Your task to perform on an android device: make emails show in primary in the gmail app Image 0: 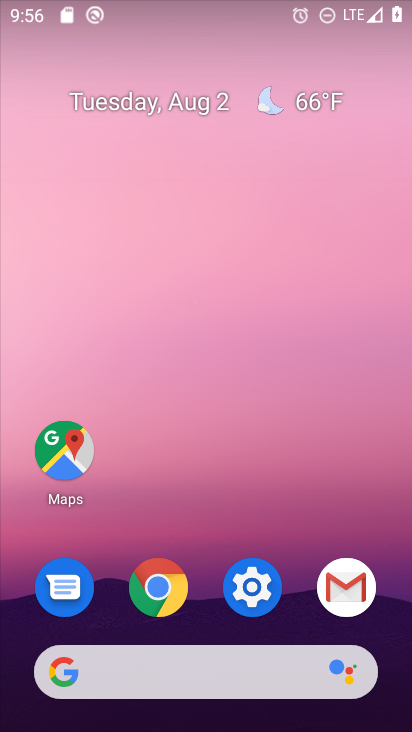
Step 0: press home button
Your task to perform on an android device: make emails show in primary in the gmail app Image 1: 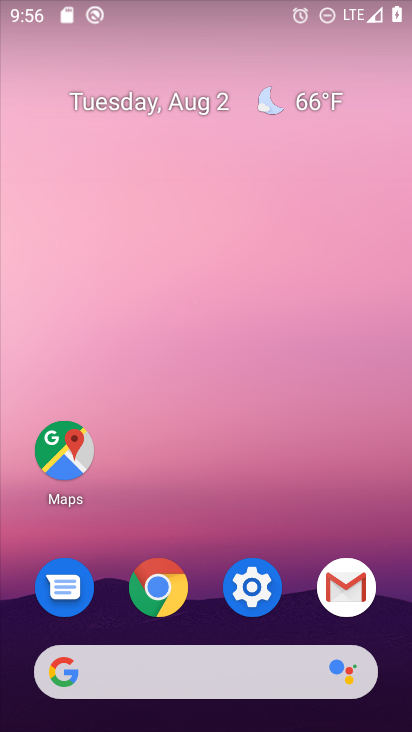
Step 1: click (359, 604)
Your task to perform on an android device: make emails show in primary in the gmail app Image 2: 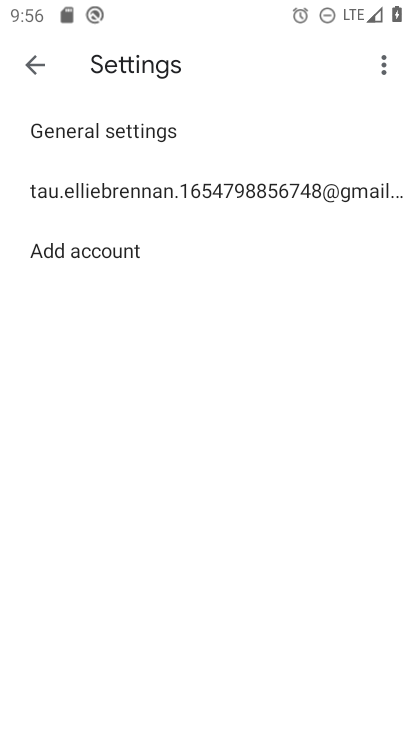
Step 2: click (133, 191)
Your task to perform on an android device: make emails show in primary in the gmail app Image 3: 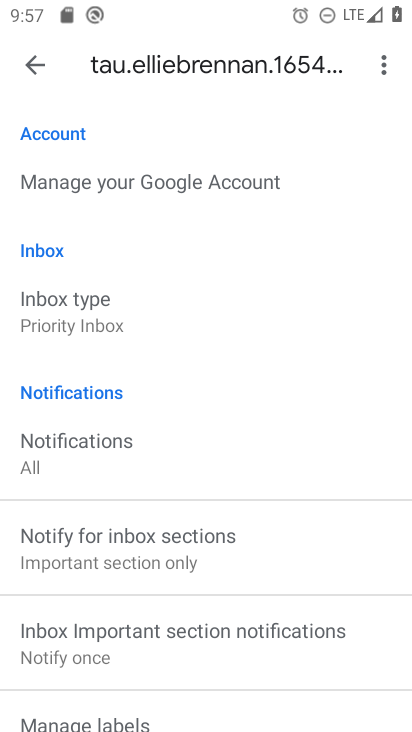
Step 3: click (92, 331)
Your task to perform on an android device: make emails show in primary in the gmail app Image 4: 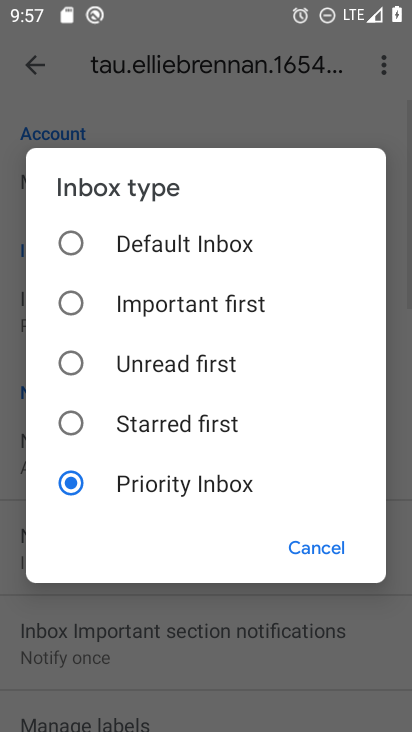
Step 4: click (130, 260)
Your task to perform on an android device: make emails show in primary in the gmail app Image 5: 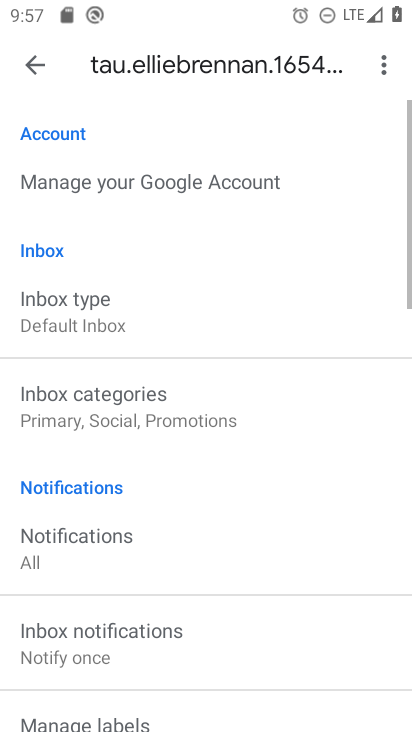
Step 5: click (95, 410)
Your task to perform on an android device: make emails show in primary in the gmail app Image 6: 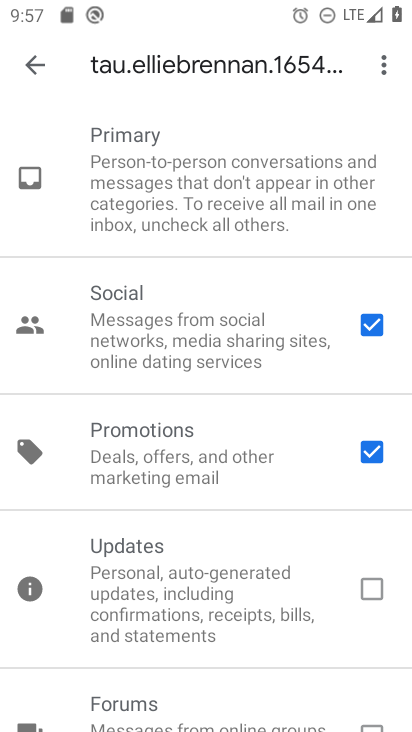
Step 6: click (168, 204)
Your task to perform on an android device: make emails show in primary in the gmail app Image 7: 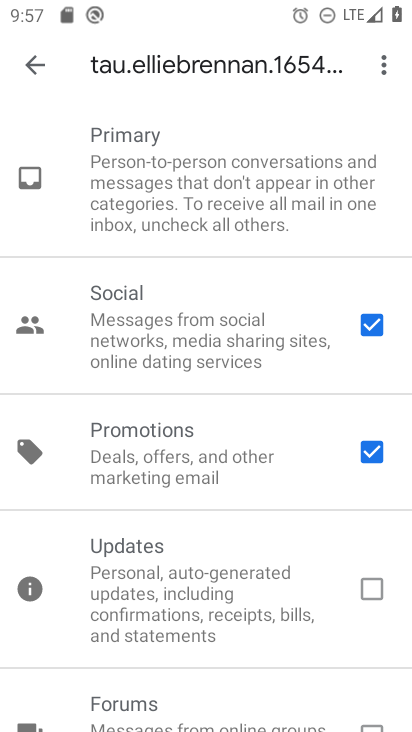
Step 7: task complete